Your task to perform on an android device: Go to CNN.com Image 0: 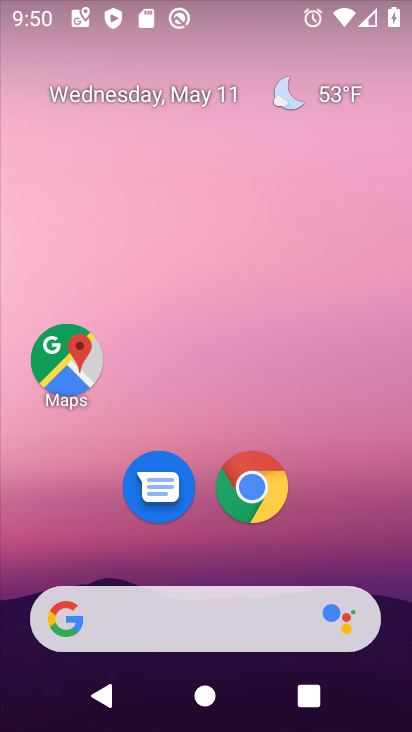
Step 0: click (231, 494)
Your task to perform on an android device: Go to CNN.com Image 1: 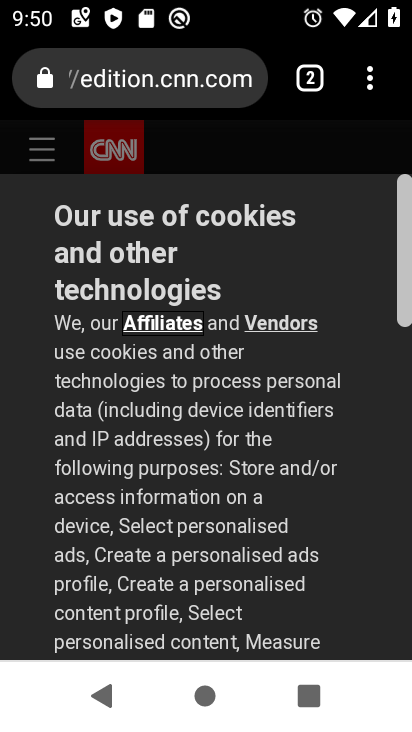
Step 1: task complete